Your task to perform on an android device: Go to ESPN.com Image 0: 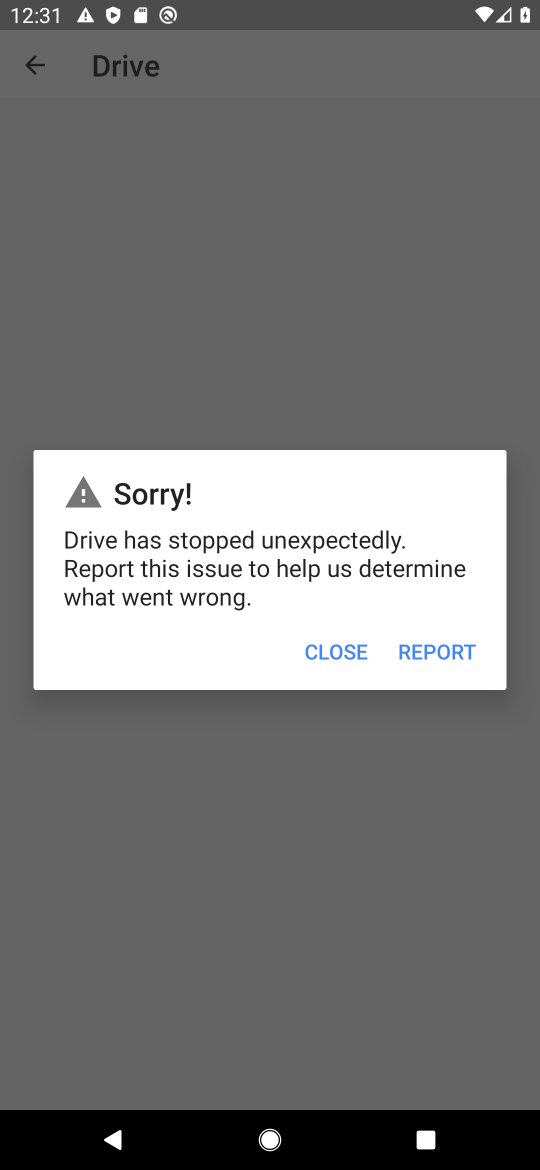
Step 0: click (340, 652)
Your task to perform on an android device: Go to ESPN.com Image 1: 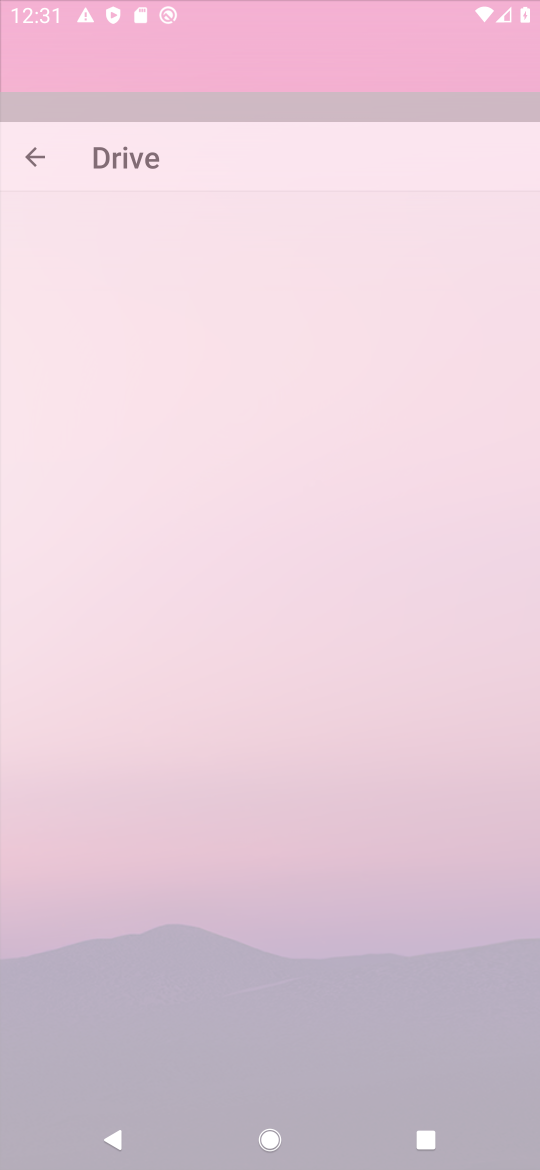
Step 1: press home button
Your task to perform on an android device: Go to ESPN.com Image 2: 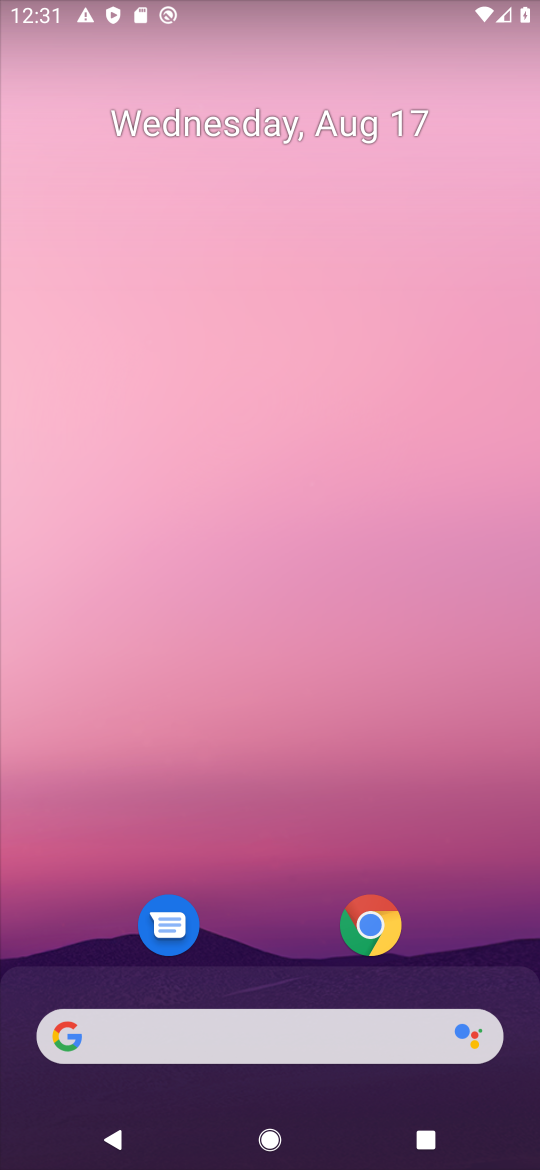
Step 2: click (360, 925)
Your task to perform on an android device: Go to ESPN.com Image 3: 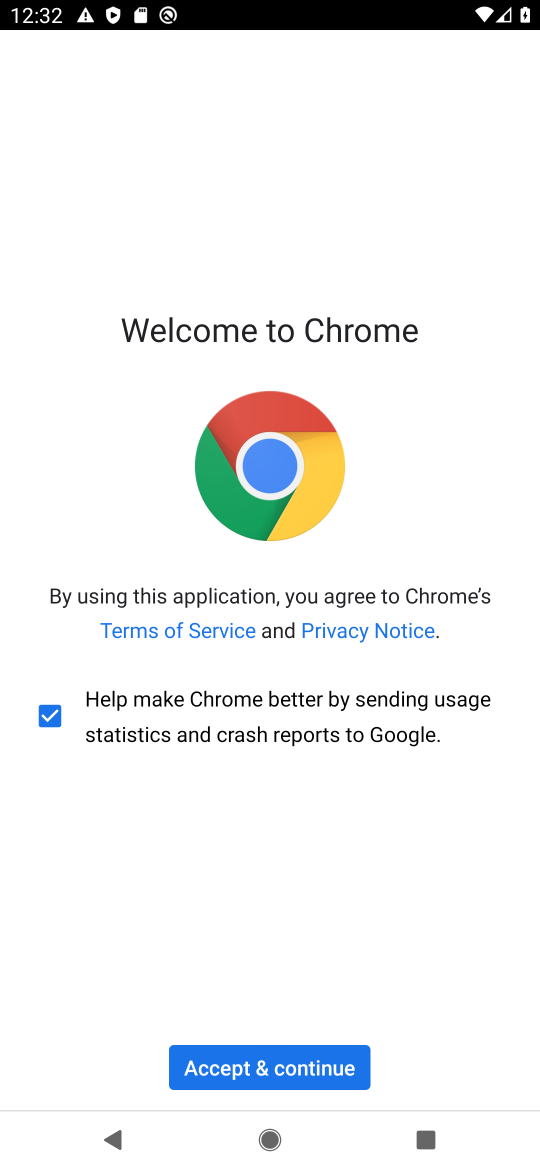
Step 3: click (303, 1069)
Your task to perform on an android device: Go to ESPN.com Image 4: 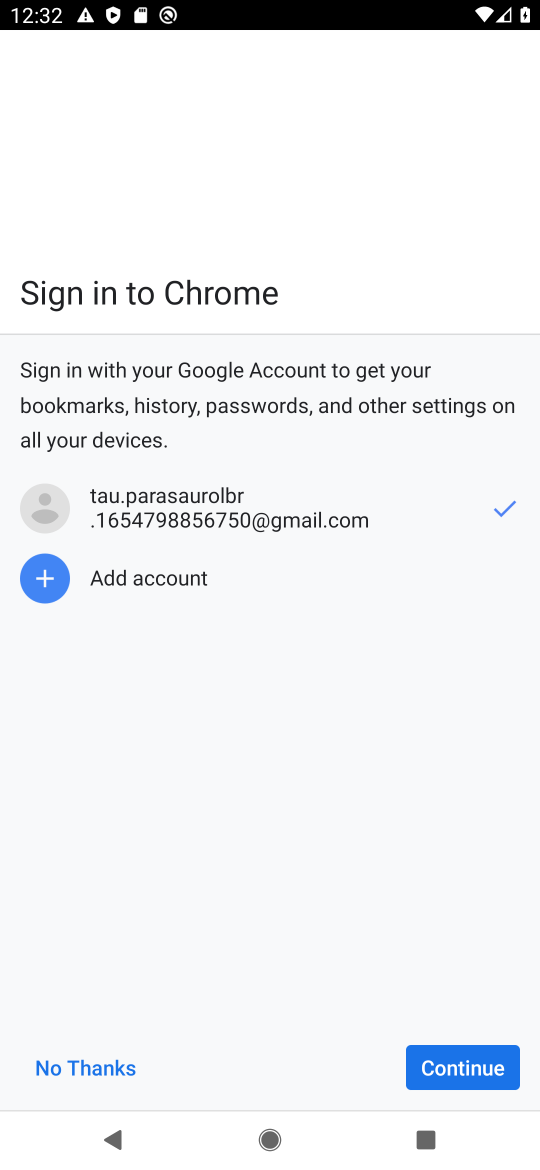
Step 4: click (494, 1067)
Your task to perform on an android device: Go to ESPN.com Image 5: 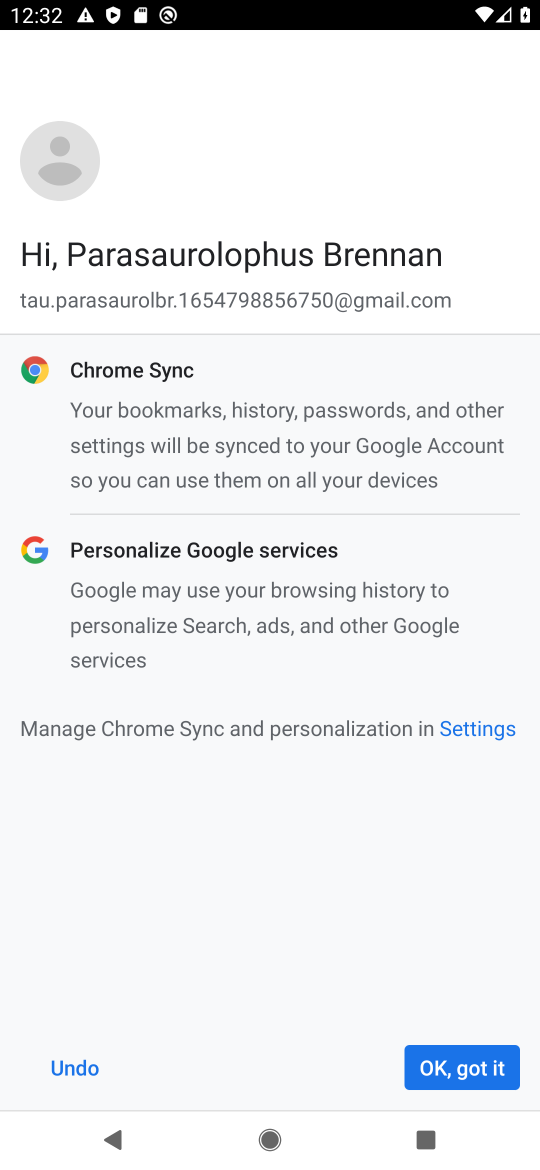
Step 5: click (483, 1060)
Your task to perform on an android device: Go to ESPN.com Image 6: 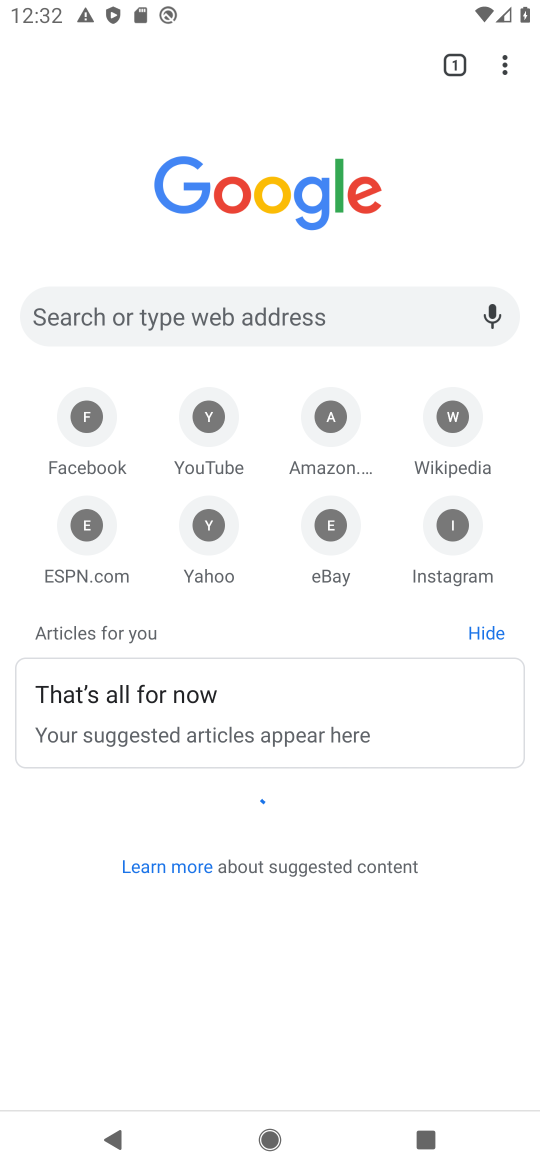
Step 6: click (69, 544)
Your task to perform on an android device: Go to ESPN.com Image 7: 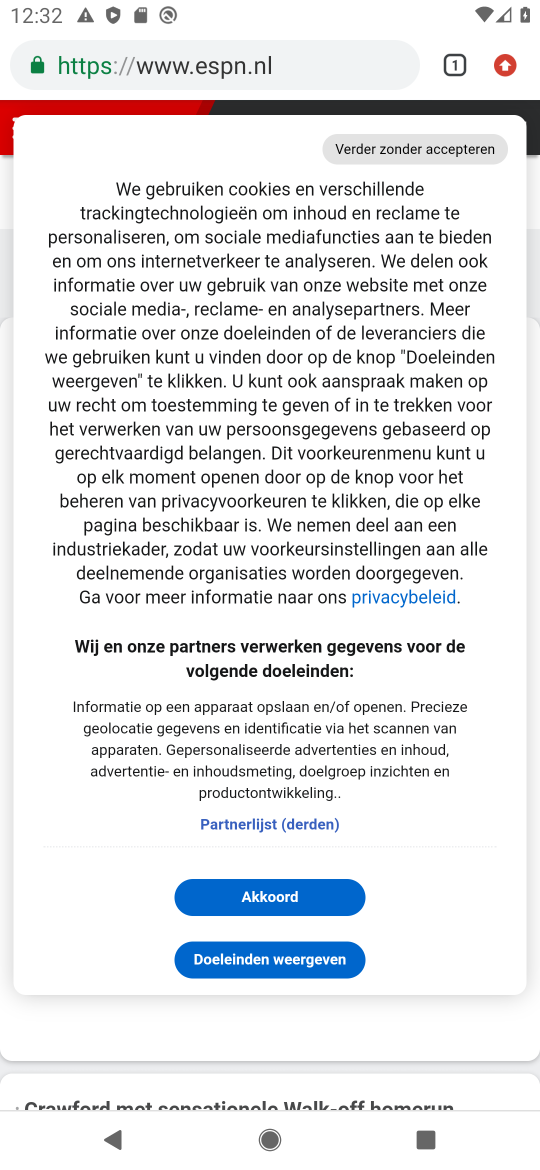
Step 7: task complete